Your task to perform on an android device: Open Chrome and go to the settings page Image 0: 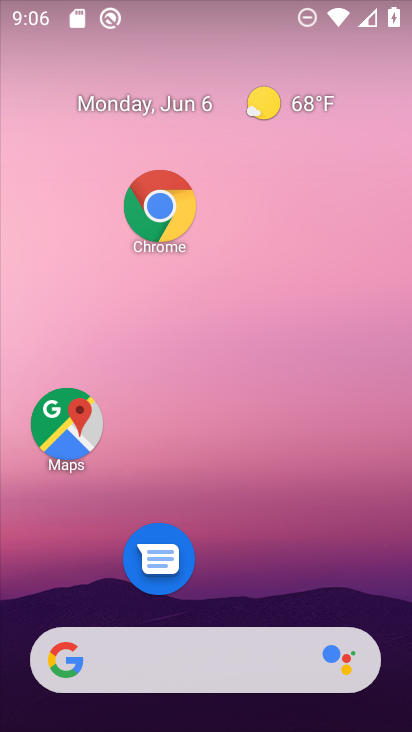
Step 0: drag from (275, 690) to (254, 271)
Your task to perform on an android device: Open Chrome and go to the settings page Image 1: 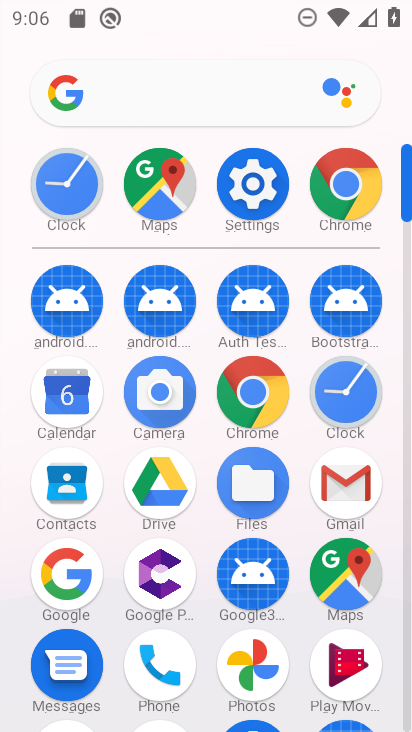
Step 1: click (251, 194)
Your task to perform on an android device: Open Chrome and go to the settings page Image 2: 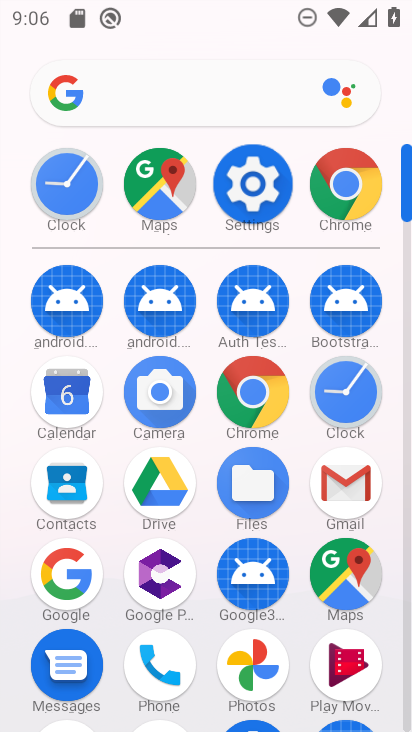
Step 2: click (254, 196)
Your task to perform on an android device: Open Chrome and go to the settings page Image 3: 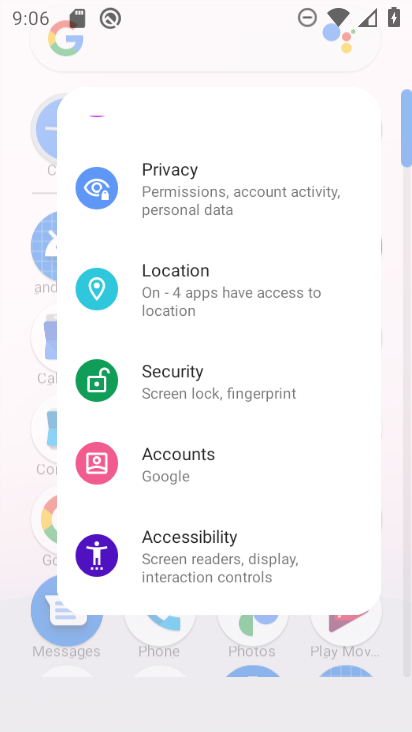
Step 3: click (256, 197)
Your task to perform on an android device: Open Chrome and go to the settings page Image 4: 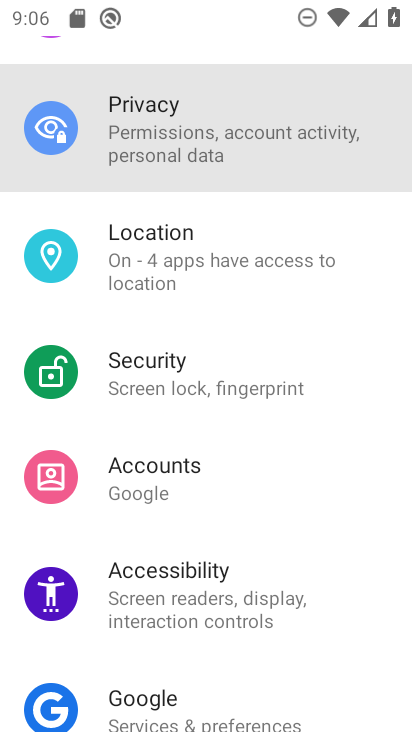
Step 4: click (260, 197)
Your task to perform on an android device: Open Chrome and go to the settings page Image 5: 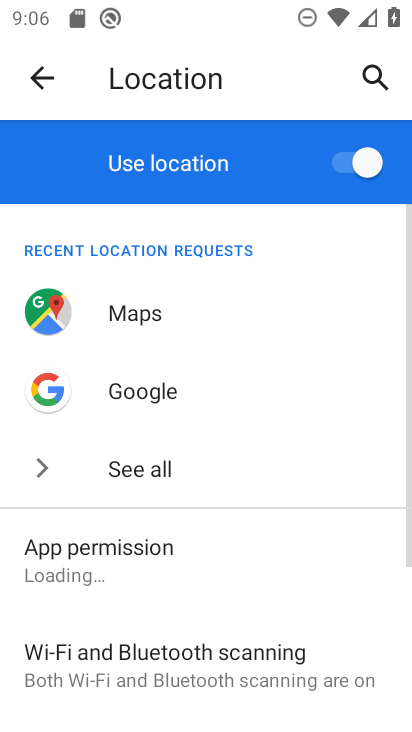
Step 5: click (47, 73)
Your task to perform on an android device: Open Chrome and go to the settings page Image 6: 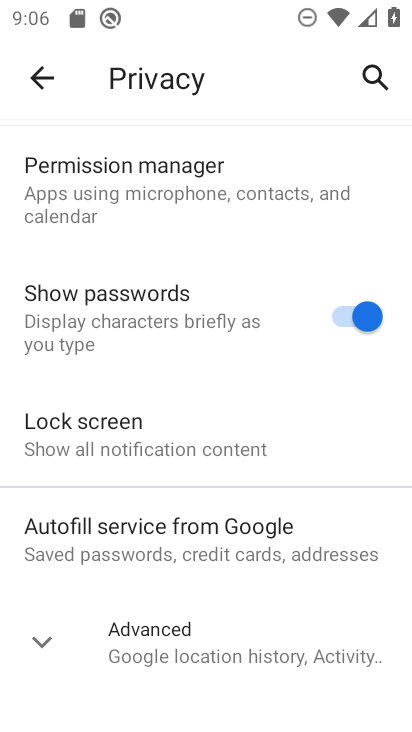
Step 6: click (43, 73)
Your task to perform on an android device: Open Chrome and go to the settings page Image 7: 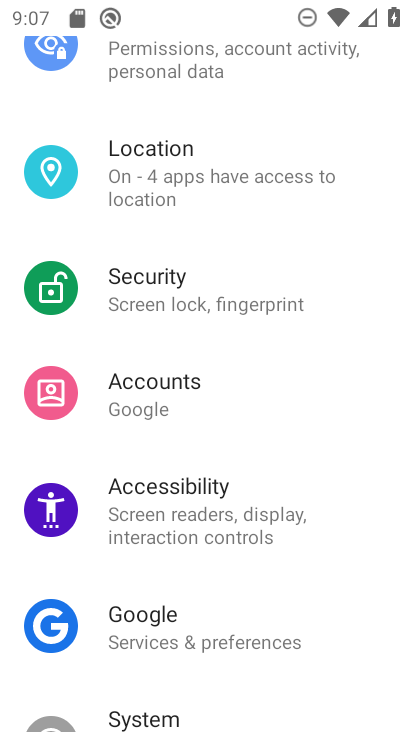
Step 7: press back button
Your task to perform on an android device: Open Chrome and go to the settings page Image 8: 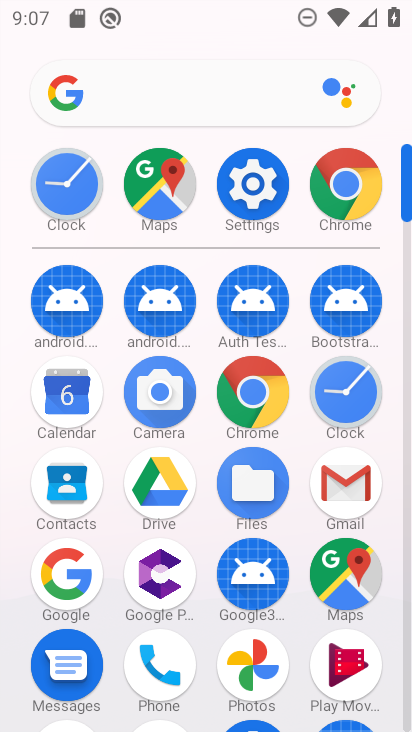
Step 8: click (246, 389)
Your task to perform on an android device: Open Chrome and go to the settings page Image 9: 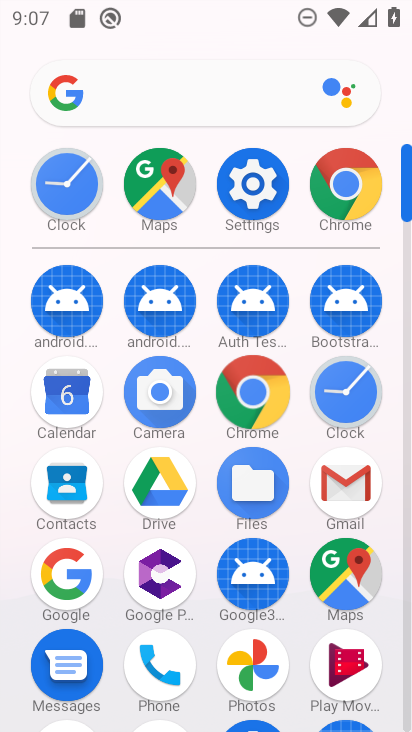
Step 9: click (247, 390)
Your task to perform on an android device: Open Chrome and go to the settings page Image 10: 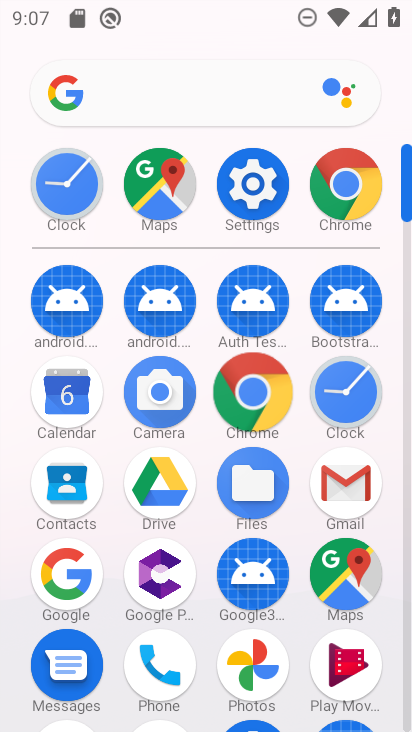
Step 10: click (247, 390)
Your task to perform on an android device: Open Chrome and go to the settings page Image 11: 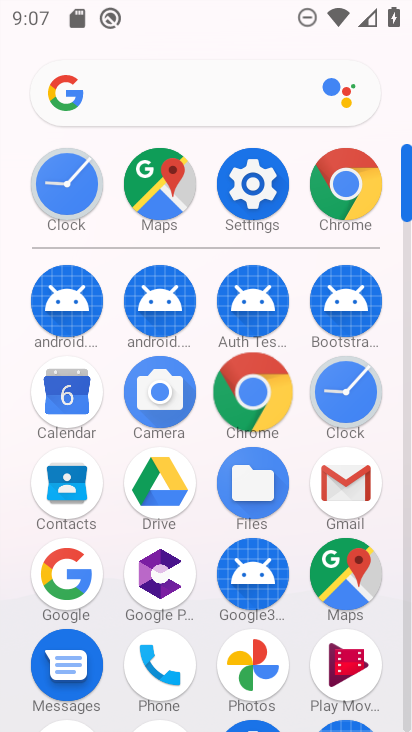
Step 11: click (251, 383)
Your task to perform on an android device: Open Chrome and go to the settings page Image 12: 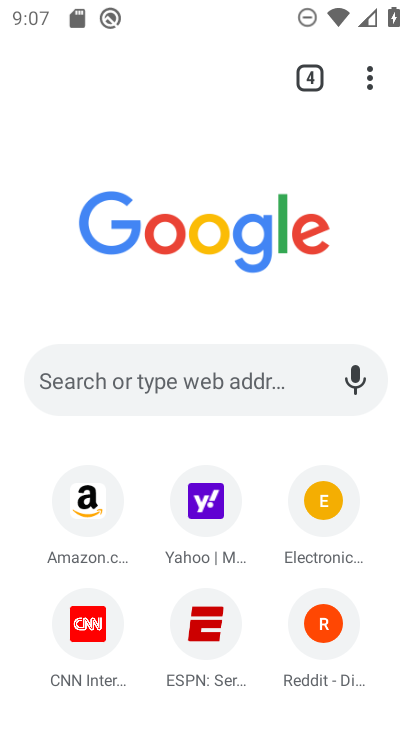
Step 12: click (250, 391)
Your task to perform on an android device: Open Chrome and go to the settings page Image 13: 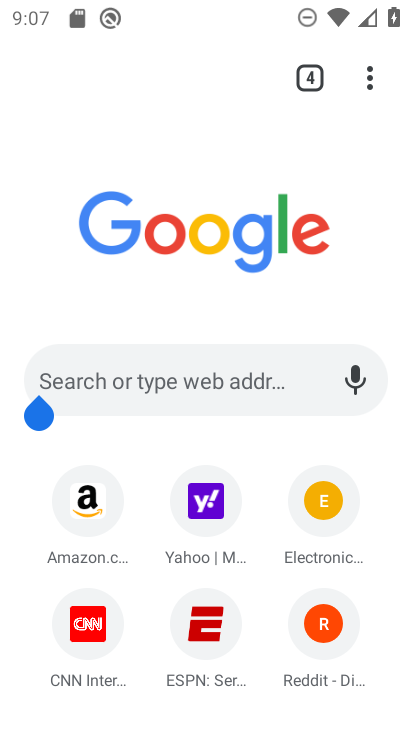
Step 13: click (247, 383)
Your task to perform on an android device: Open Chrome and go to the settings page Image 14: 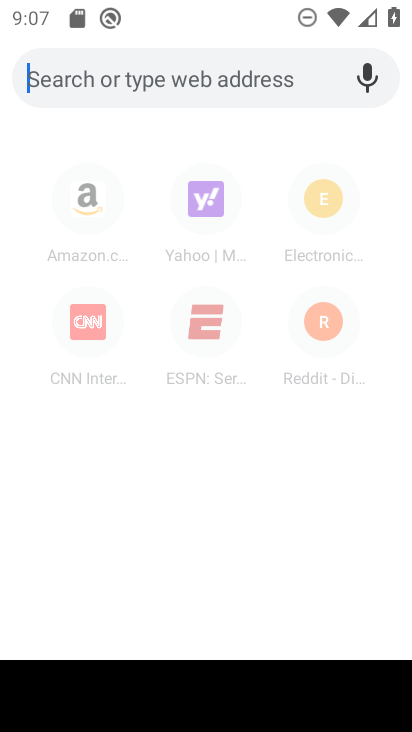
Step 14: press back button
Your task to perform on an android device: Open Chrome and go to the settings page Image 15: 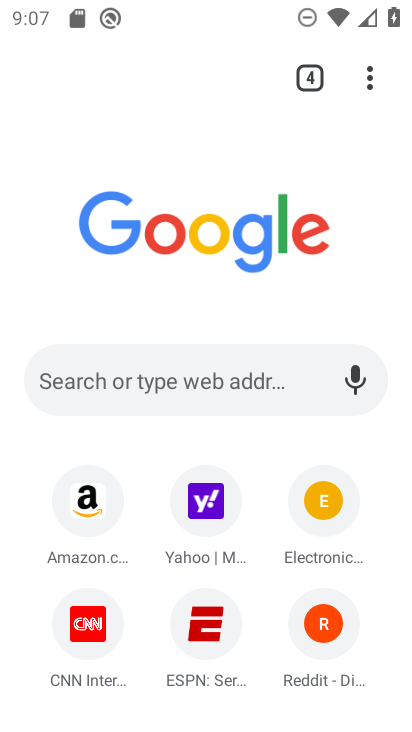
Step 15: drag from (372, 87) to (73, 603)
Your task to perform on an android device: Open Chrome and go to the settings page Image 16: 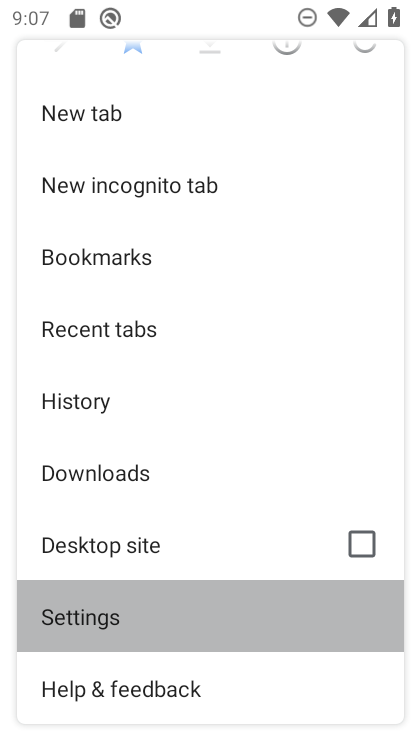
Step 16: click (73, 602)
Your task to perform on an android device: Open Chrome and go to the settings page Image 17: 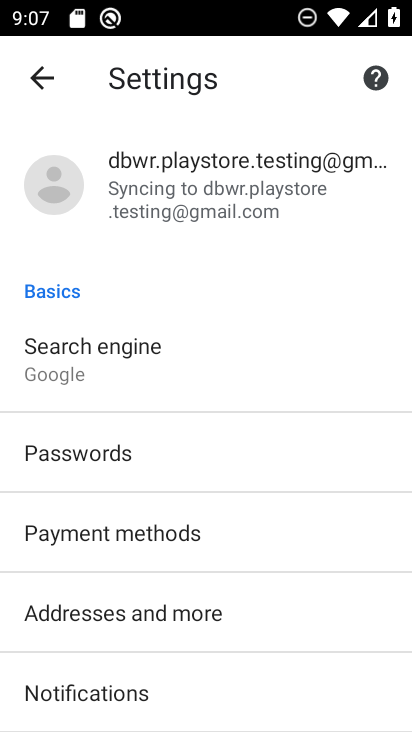
Step 17: task complete